Your task to perform on an android device: See recent photos Image 0: 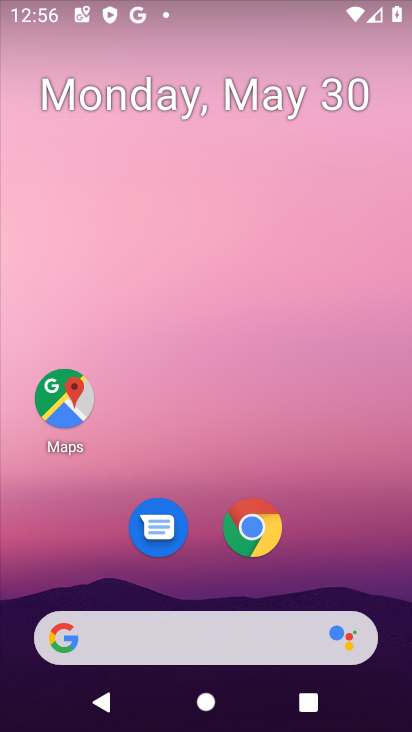
Step 0: drag from (380, 550) to (251, 147)
Your task to perform on an android device: See recent photos Image 1: 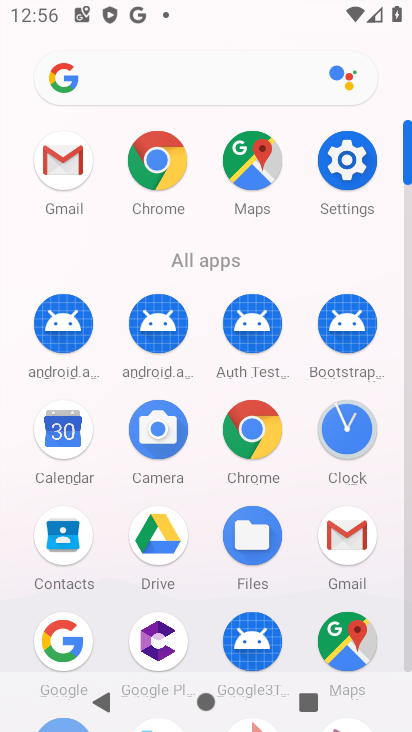
Step 1: click (407, 661)
Your task to perform on an android device: See recent photos Image 2: 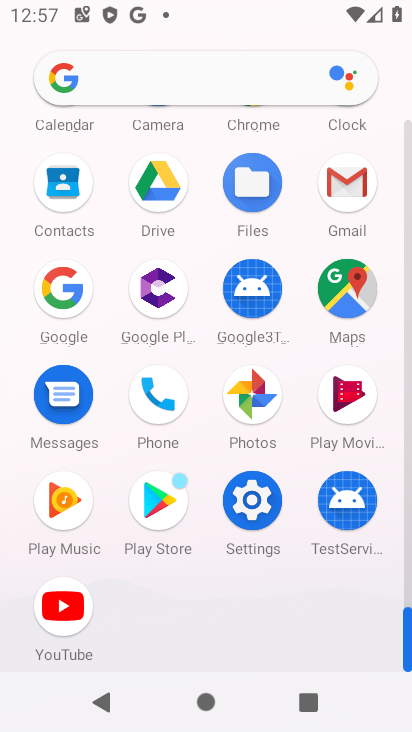
Step 2: click (251, 414)
Your task to perform on an android device: See recent photos Image 3: 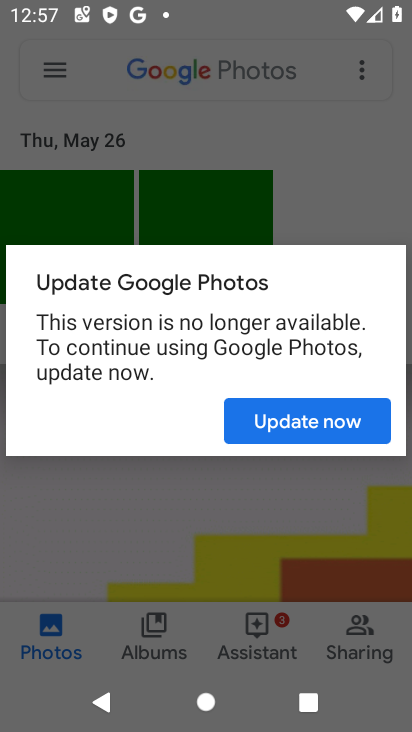
Step 3: click (311, 427)
Your task to perform on an android device: See recent photos Image 4: 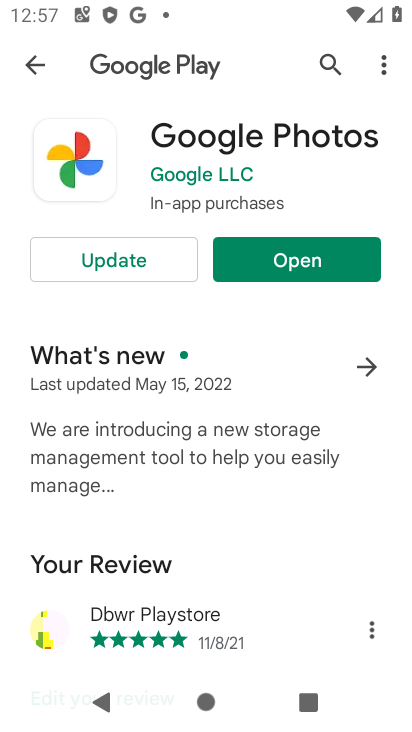
Step 4: click (108, 259)
Your task to perform on an android device: See recent photos Image 5: 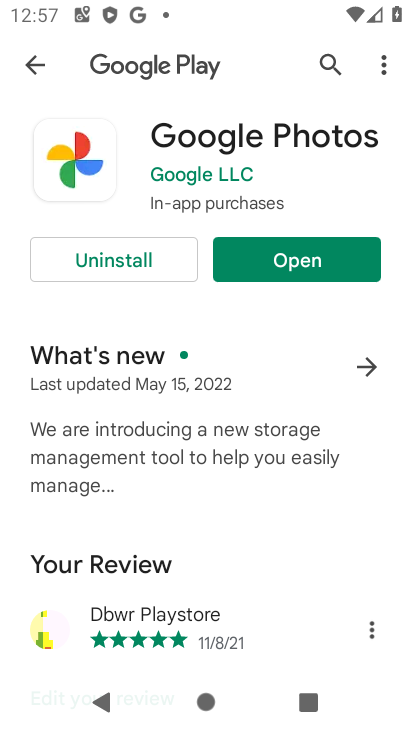
Step 5: click (256, 265)
Your task to perform on an android device: See recent photos Image 6: 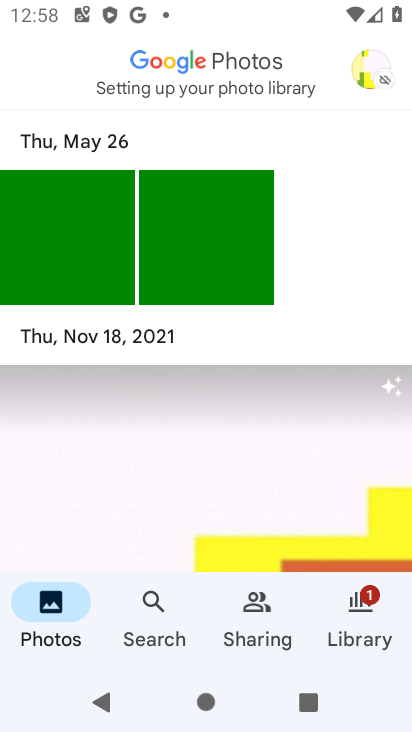
Step 6: task complete